Your task to perform on an android device: Go to Google Image 0: 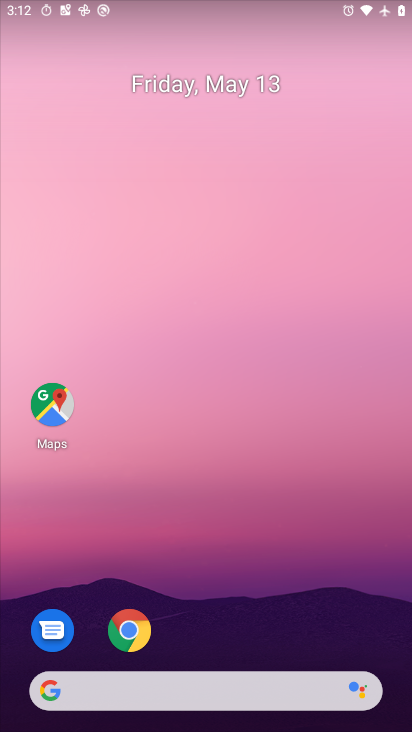
Step 0: drag from (278, 621) to (265, 93)
Your task to perform on an android device: Go to Google Image 1: 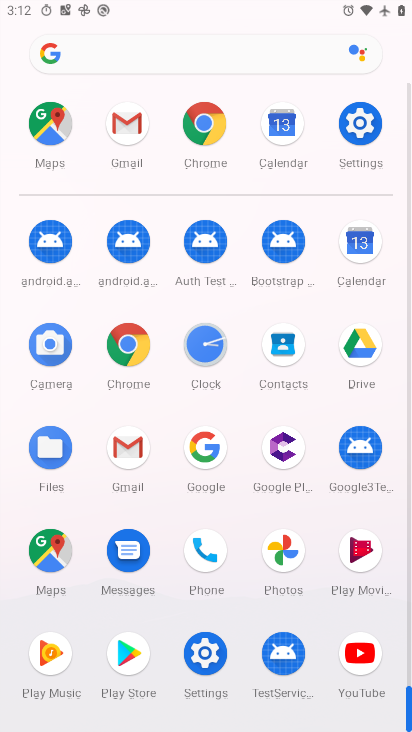
Step 1: click (222, 449)
Your task to perform on an android device: Go to Google Image 2: 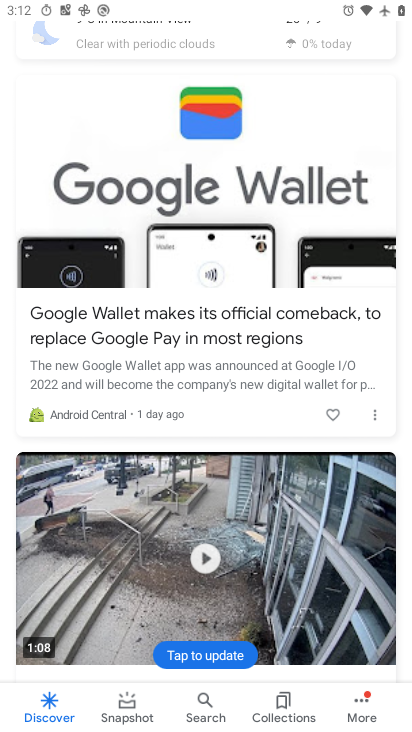
Step 2: task complete